Your task to perform on an android device: make emails show in primary in the gmail app Image 0: 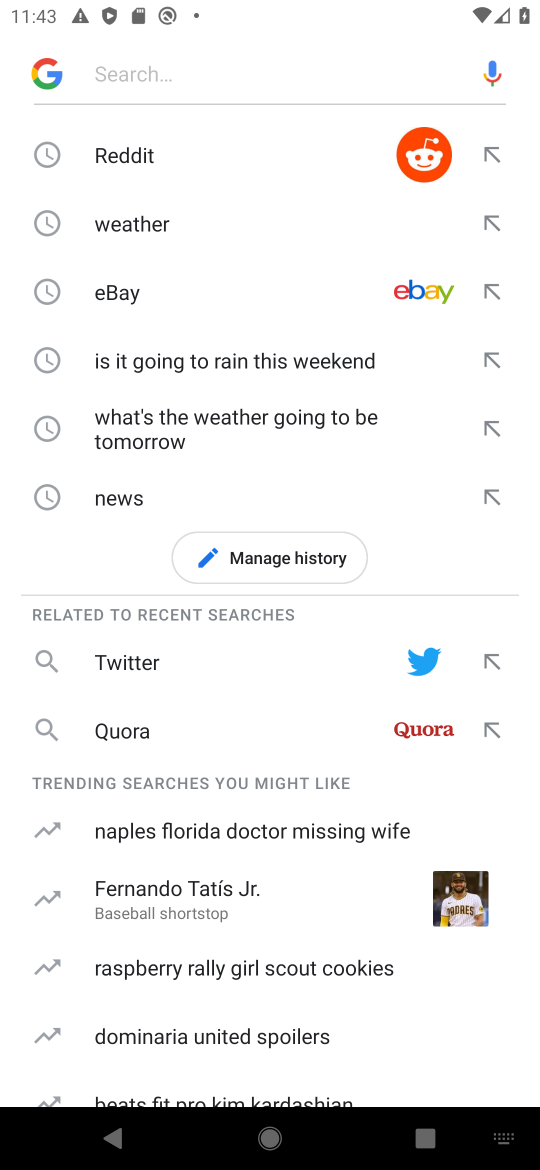
Step 0: press home button
Your task to perform on an android device: make emails show in primary in the gmail app Image 1: 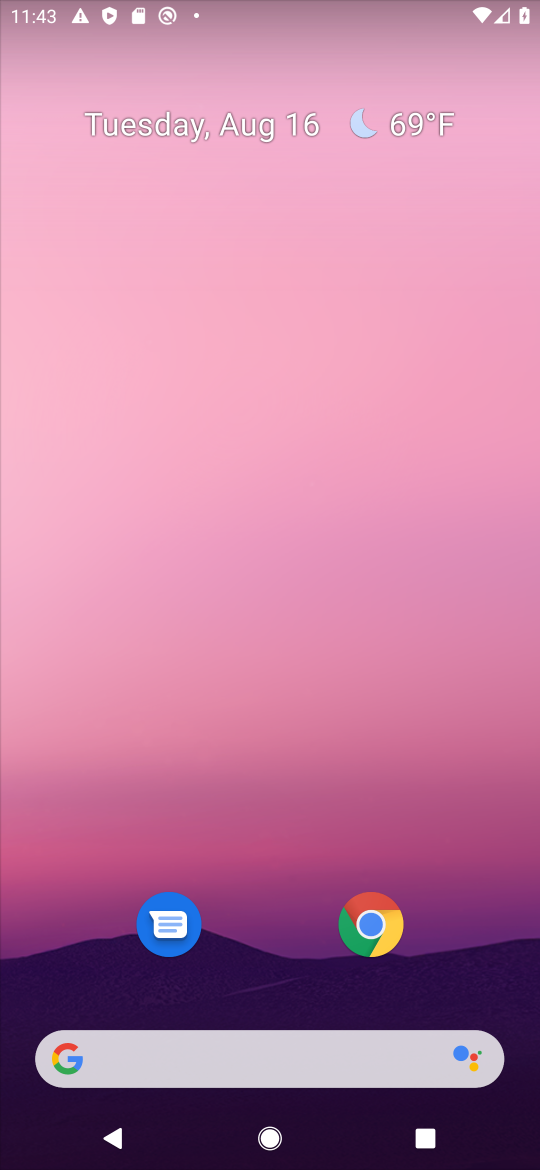
Step 1: drag from (297, 995) to (226, 20)
Your task to perform on an android device: make emails show in primary in the gmail app Image 2: 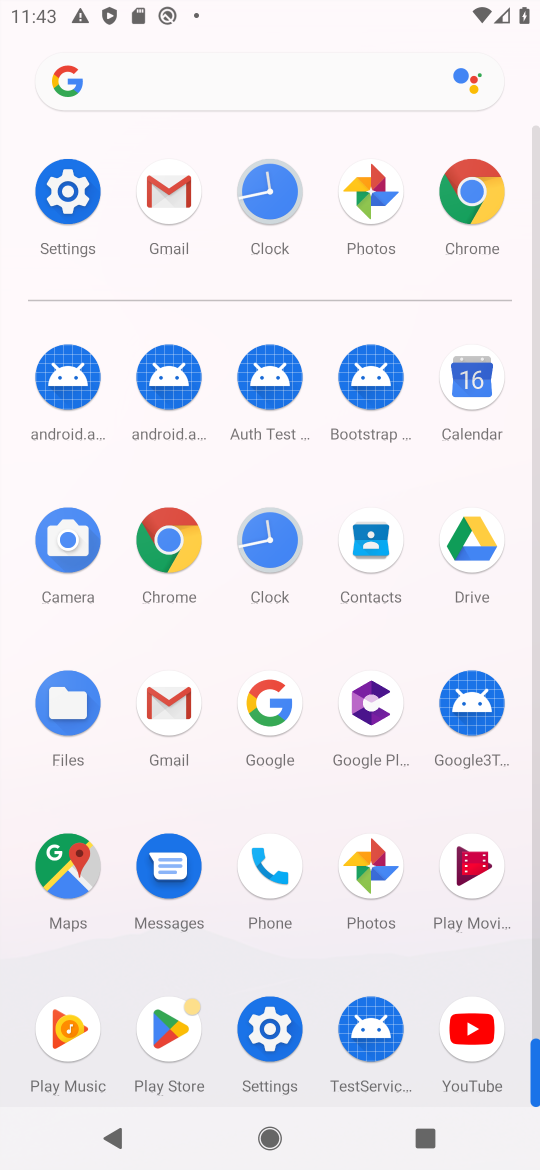
Step 2: click (179, 183)
Your task to perform on an android device: make emails show in primary in the gmail app Image 3: 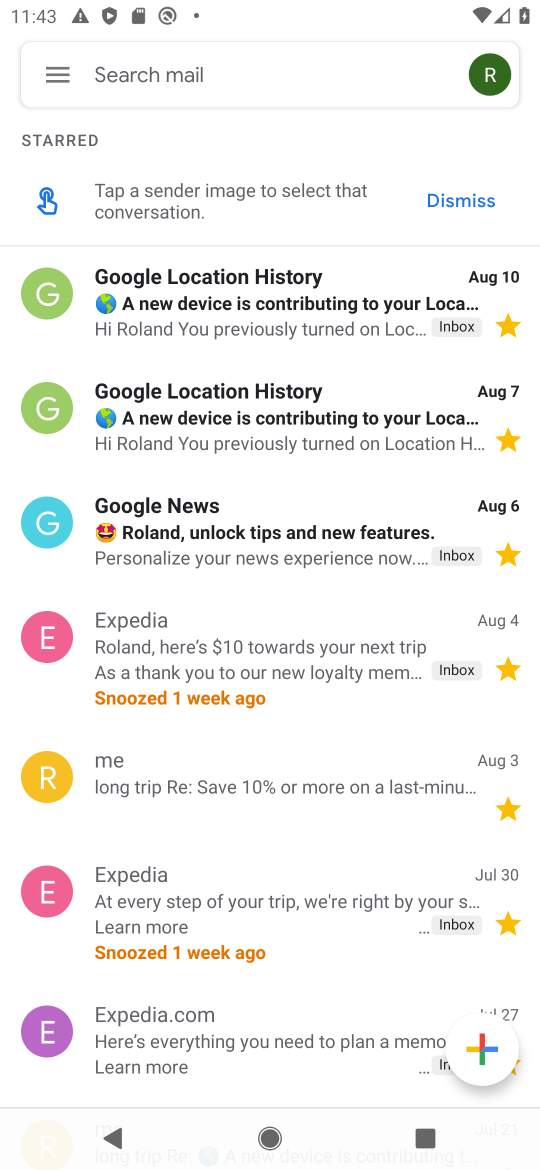
Step 3: click (31, 80)
Your task to perform on an android device: make emails show in primary in the gmail app Image 4: 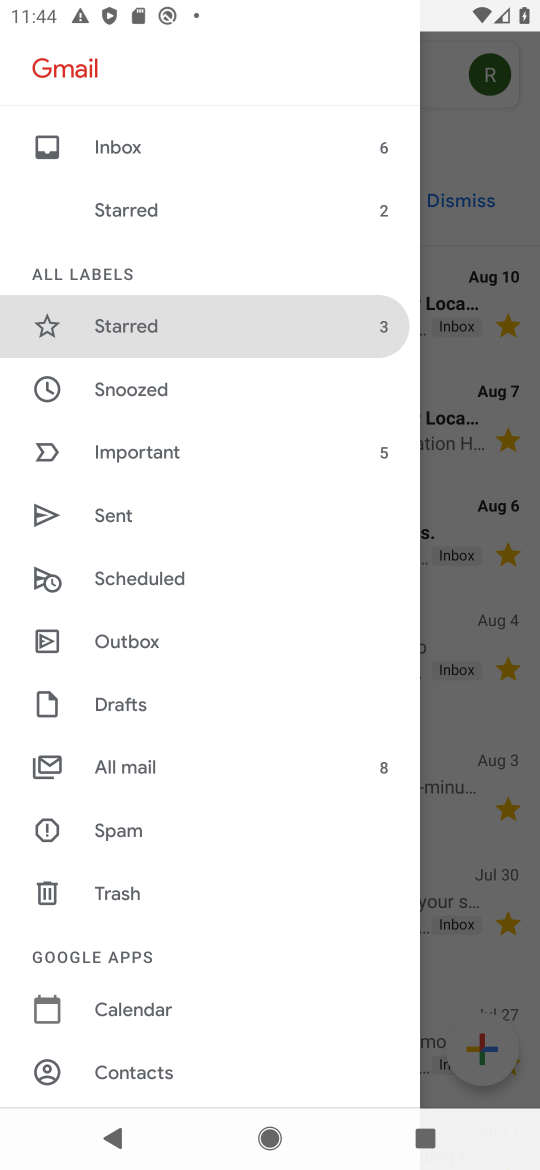
Step 4: task complete